Your task to perform on an android device: What is the news today? Image 0: 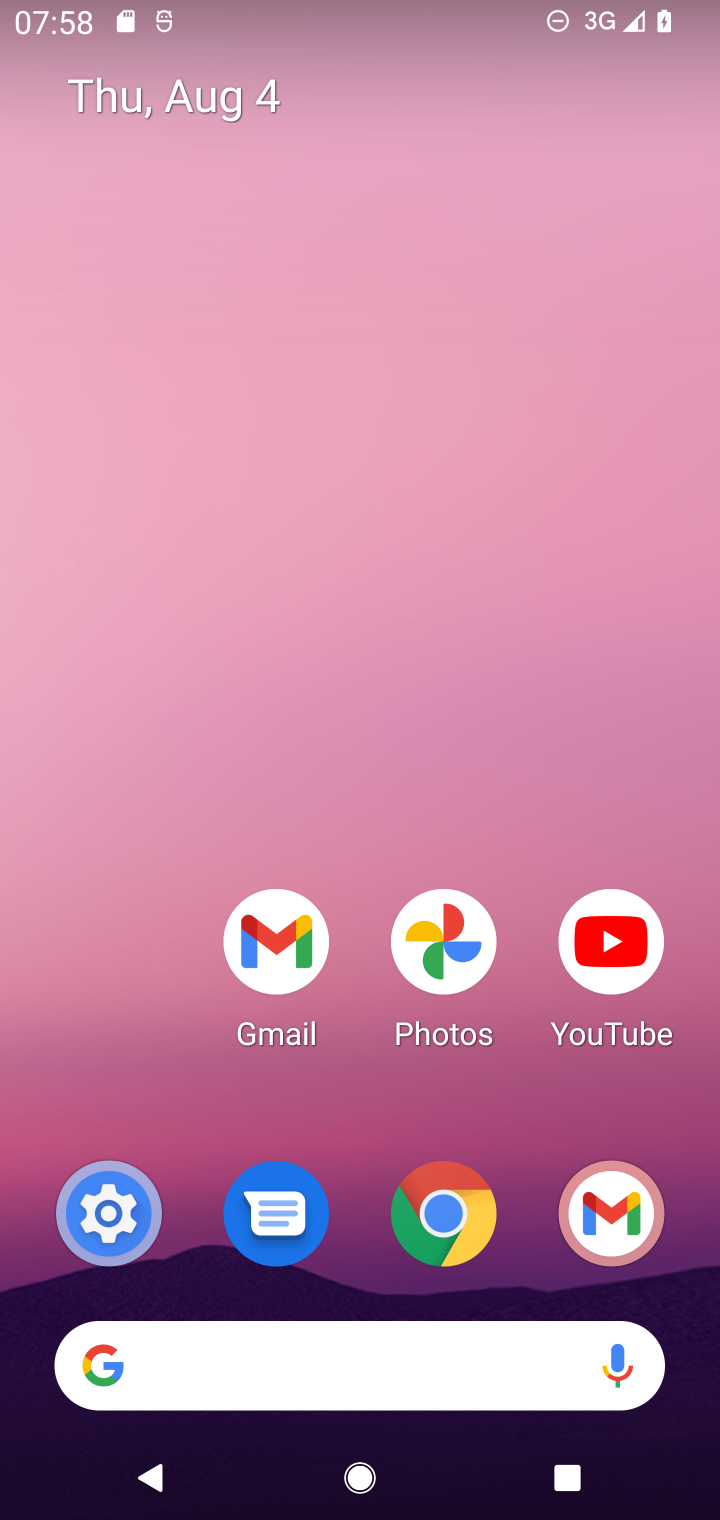
Step 0: press home button
Your task to perform on an android device: What is the news today? Image 1: 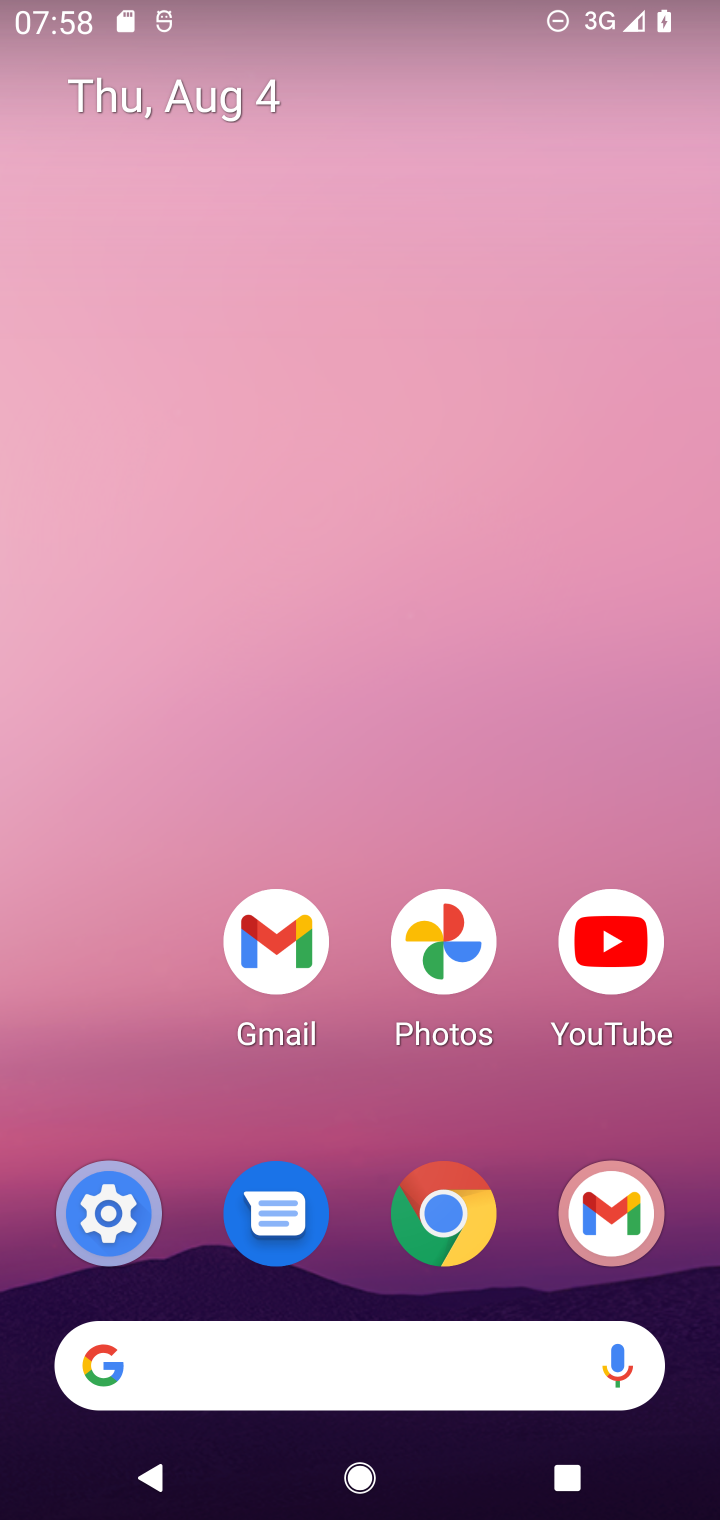
Step 1: drag from (18, 566) to (718, 852)
Your task to perform on an android device: What is the news today? Image 2: 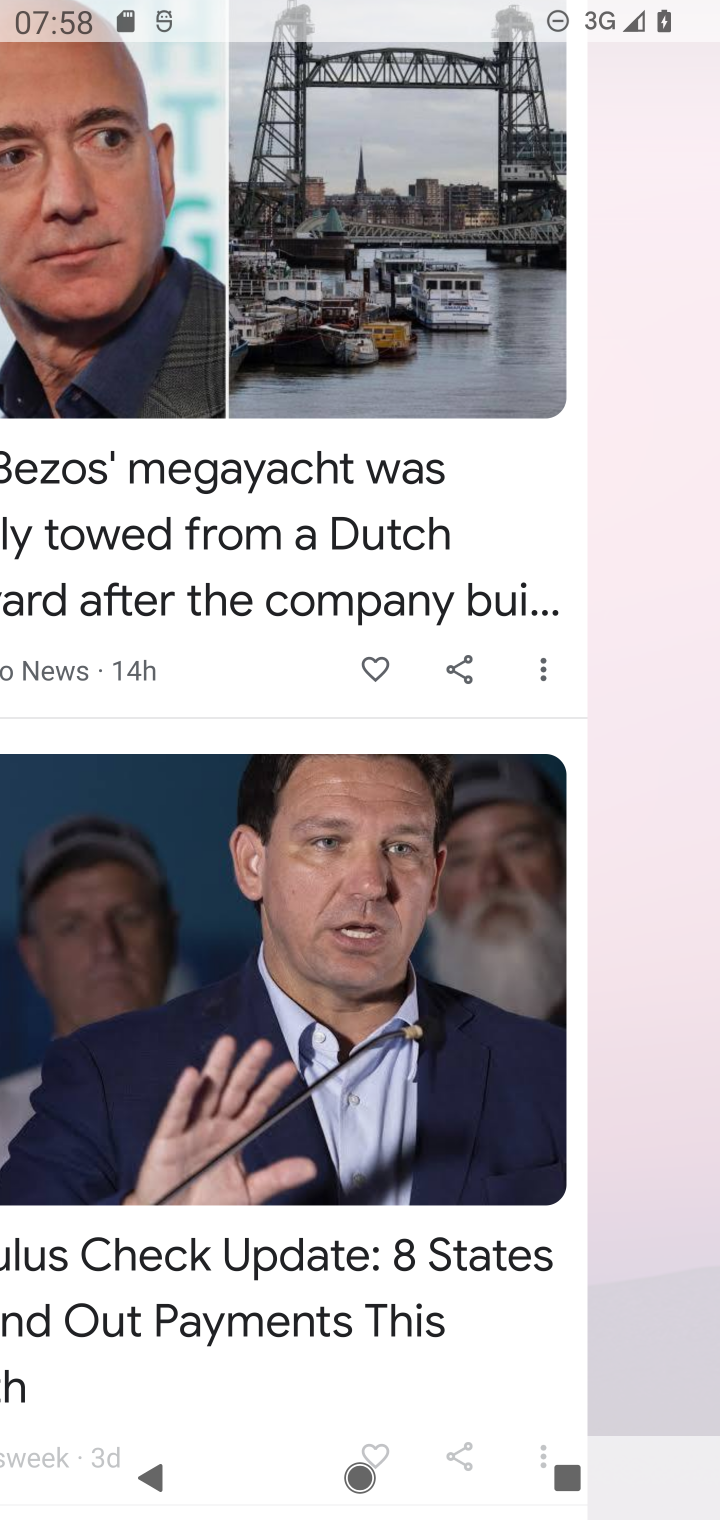
Step 2: click (666, 850)
Your task to perform on an android device: What is the news today? Image 3: 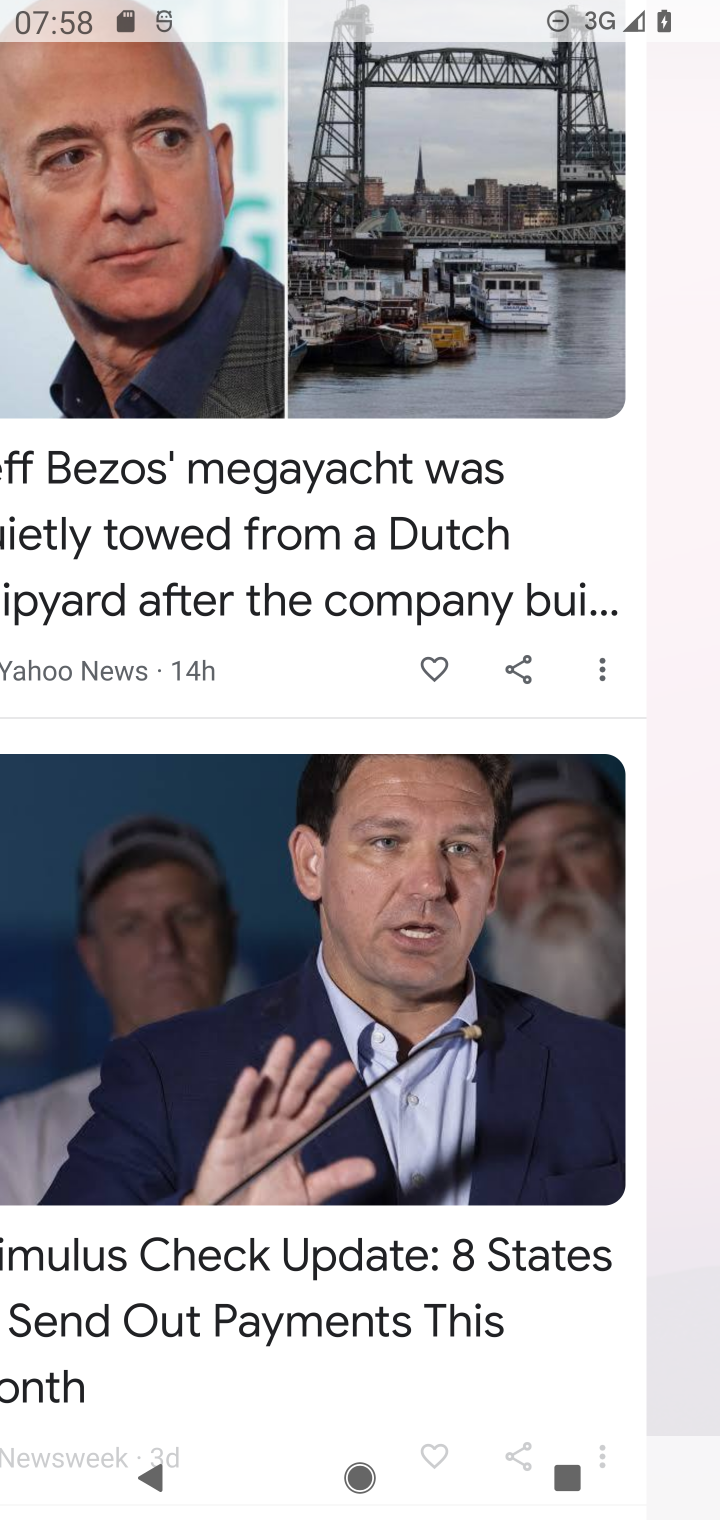
Step 3: task complete